Your task to perform on an android device: Open calendar and show me the second week of next month Image 0: 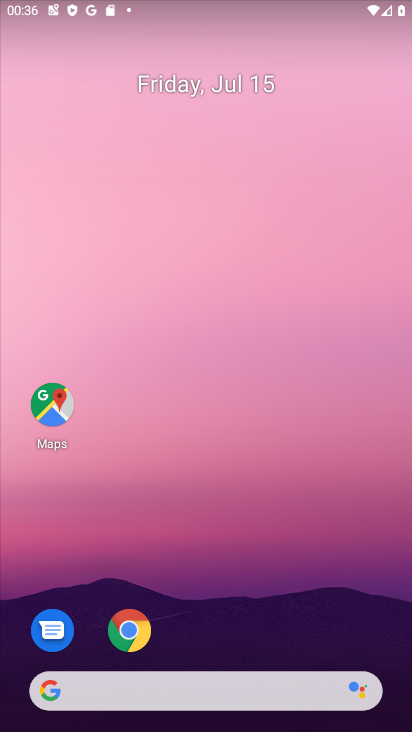
Step 0: drag from (301, 628) to (227, 142)
Your task to perform on an android device: Open calendar and show me the second week of next month Image 1: 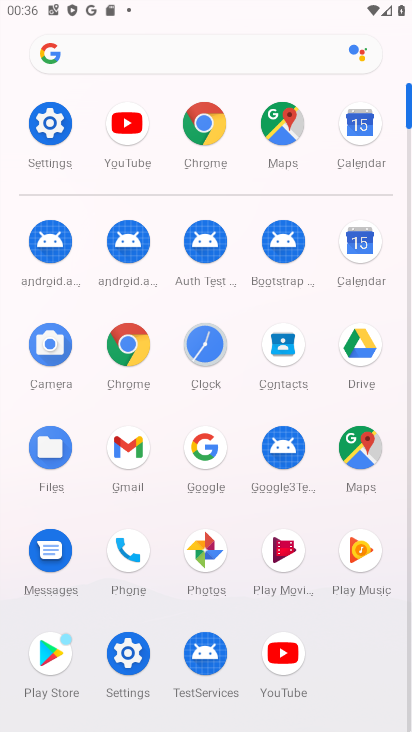
Step 1: click (365, 121)
Your task to perform on an android device: Open calendar and show me the second week of next month Image 2: 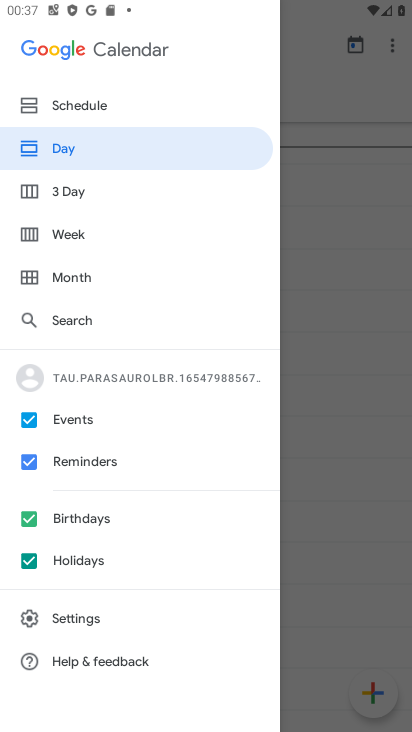
Step 2: click (315, 433)
Your task to perform on an android device: Open calendar and show me the second week of next month Image 3: 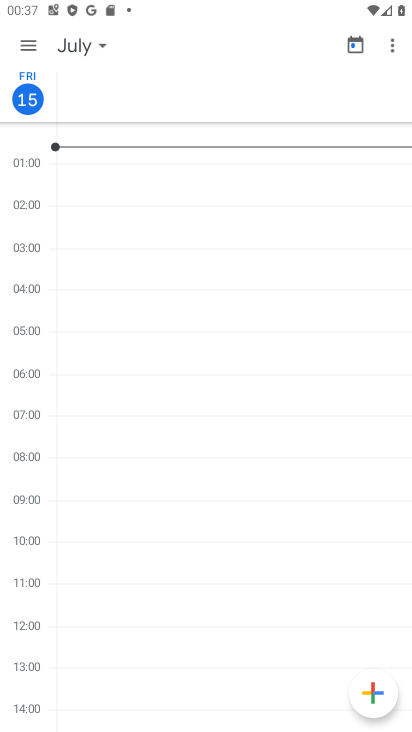
Step 3: task complete